Your task to perform on an android device: turn on location history Image 0: 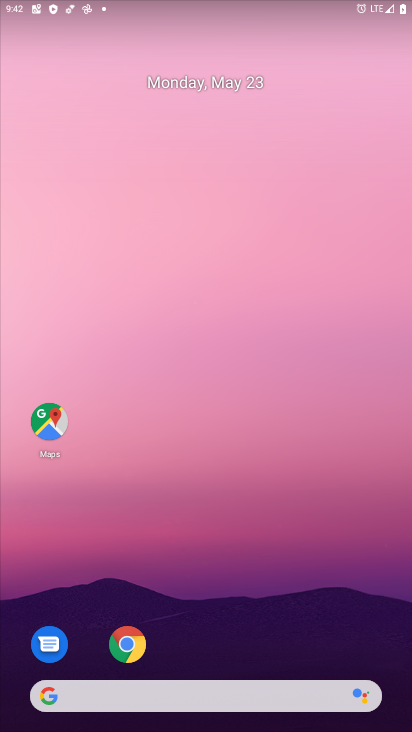
Step 0: drag from (128, 729) to (127, 14)
Your task to perform on an android device: turn on location history Image 1: 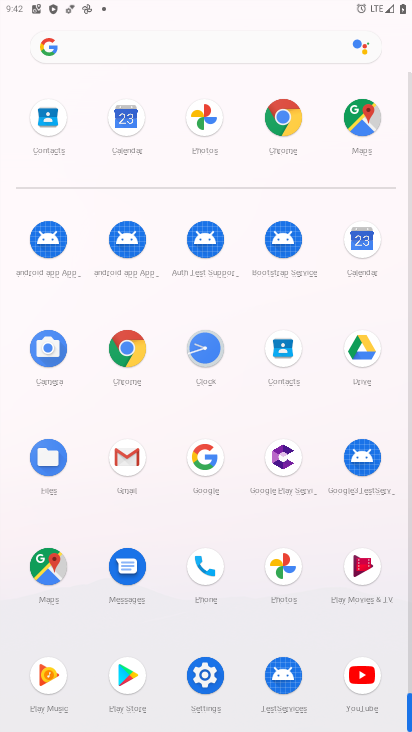
Step 1: click (199, 674)
Your task to perform on an android device: turn on location history Image 2: 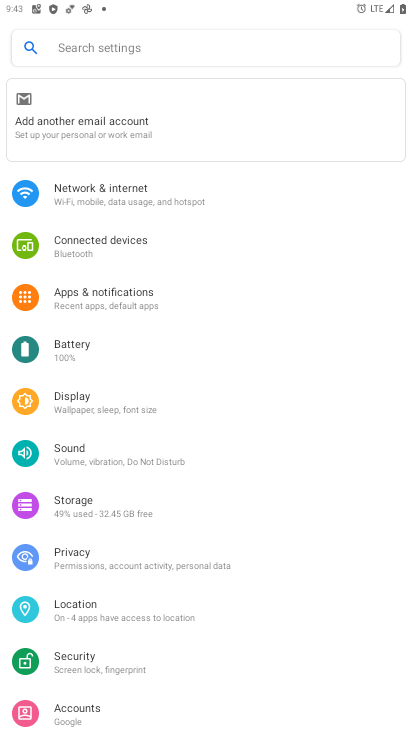
Step 2: press home button
Your task to perform on an android device: turn on location history Image 3: 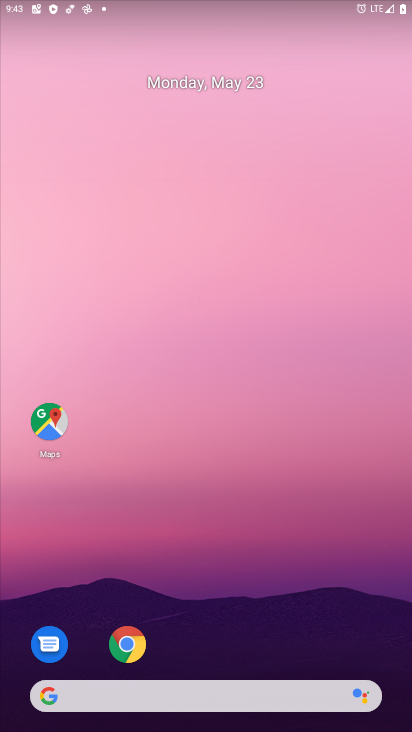
Step 3: click (40, 413)
Your task to perform on an android device: turn on location history Image 4: 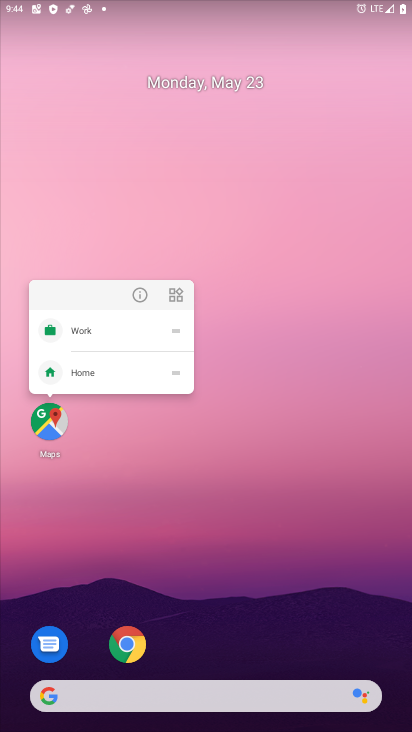
Step 4: click (57, 414)
Your task to perform on an android device: turn on location history Image 5: 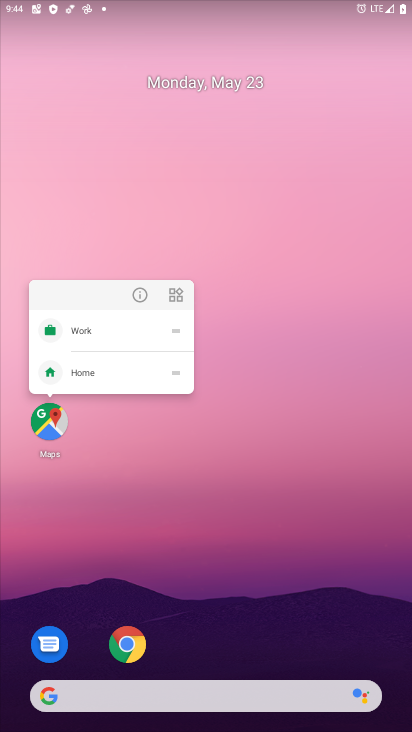
Step 5: click (57, 414)
Your task to perform on an android device: turn on location history Image 6: 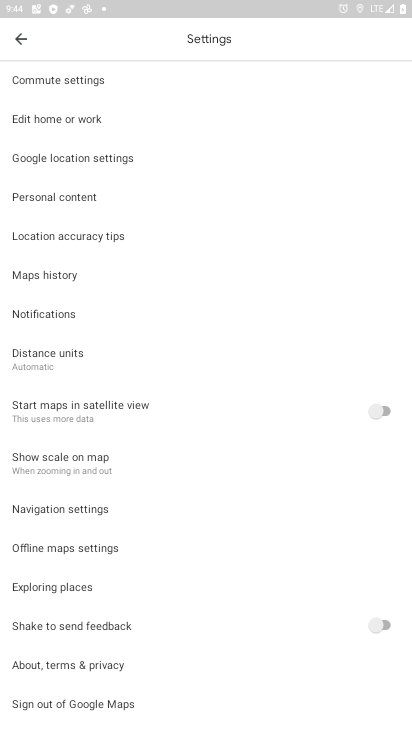
Step 6: click (19, 39)
Your task to perform on an android device: turn on location history Image 7: 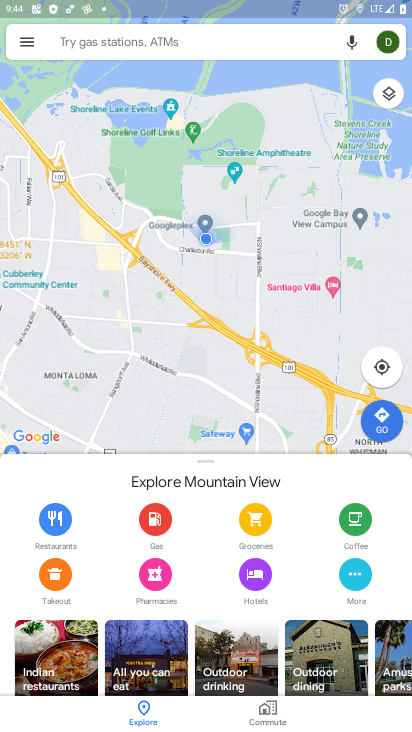
Step 7: click (31, 40)
Your task to perform on an android device: turn on location history Image 8: 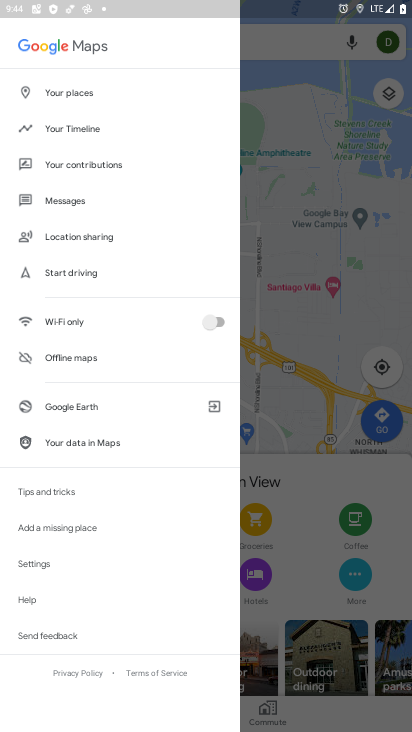
Step 8: click (114, 122)
Your task to perform on an android device: turn on location history Image 9: 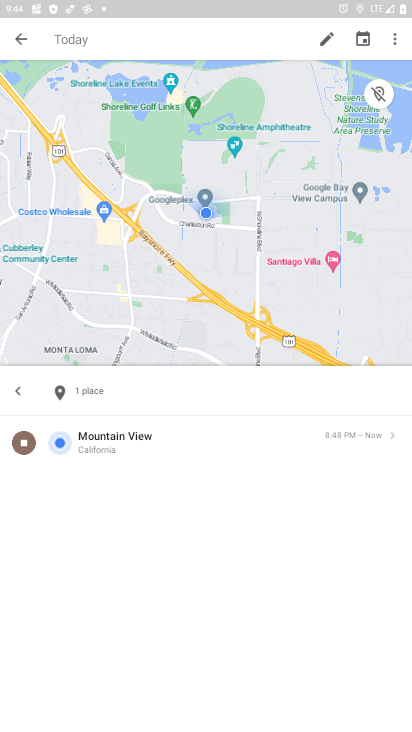
Step 9: click (397, 36)
Your task to perform on an android device: turn on location history Image 10: 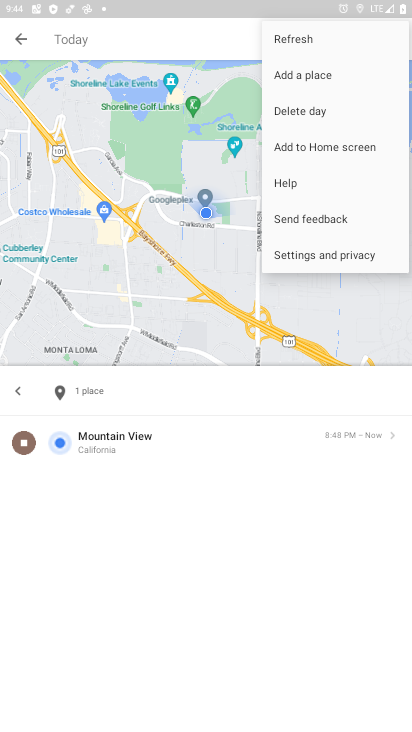
Step 10: click (332, 255)
Your task to perform on an android device: turn on location history Image 11: 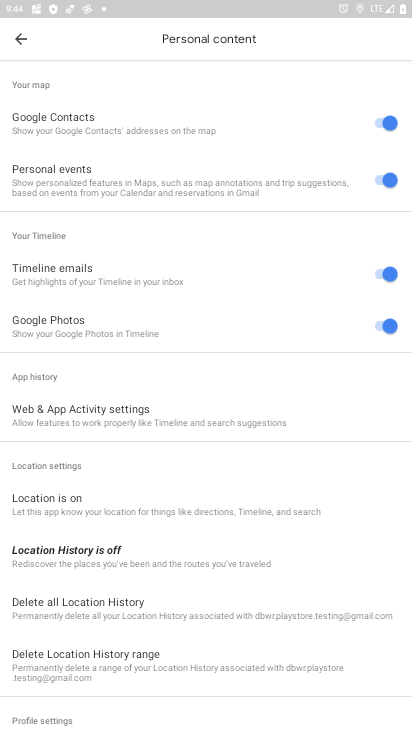
Step 11: click (144, 554)
Your task to perform on an android device: turn on location history Image 12: 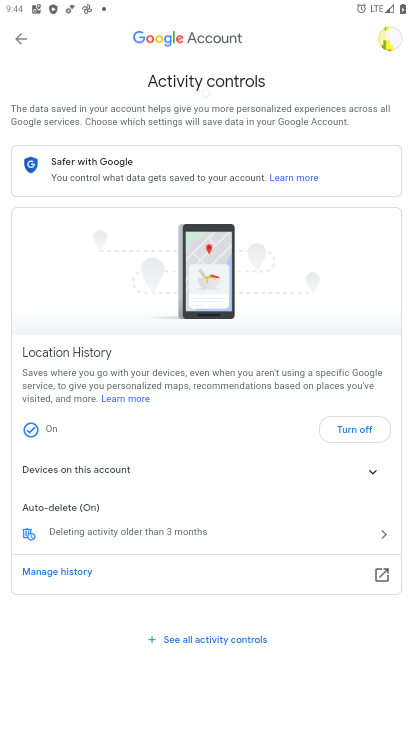
Step 12: task complete